Your task to perform on an android device: Open Maps and search for coffee Image 0: 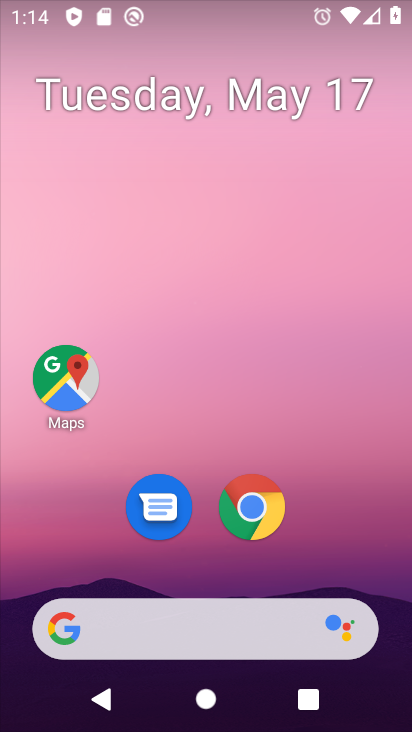
Step 0: click (59, 353)
Your task to perform on an android device: Open Maps and search for coffee Image 1: 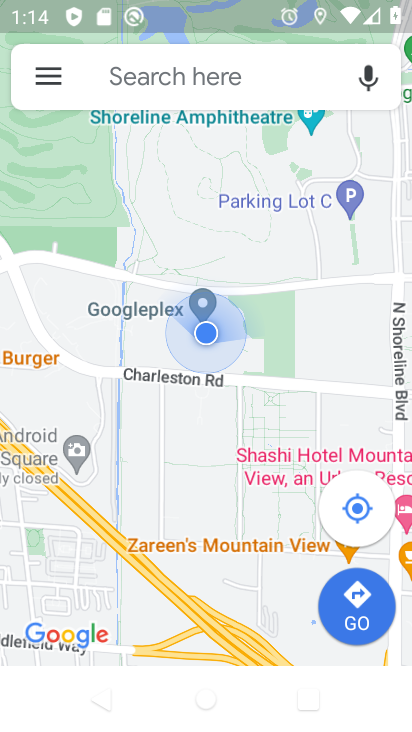
Step 1: click (235, 68)
Your task to perform on an android device: Open Maps and search for coffee Image 2: 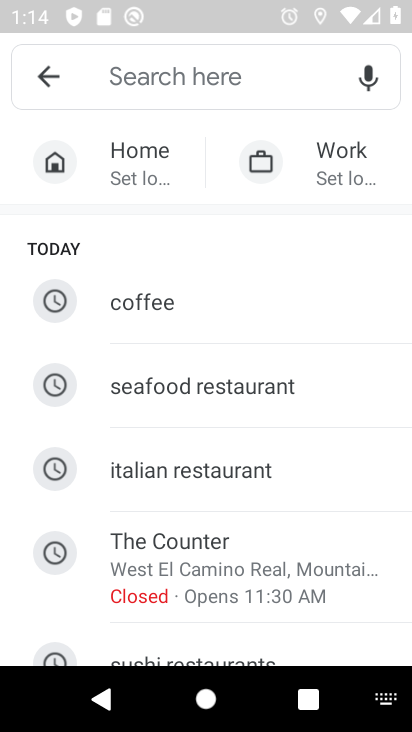
Step 2: type " coffee"
Your task to perform on an android device: Open Maps and search for coffee Image 3: 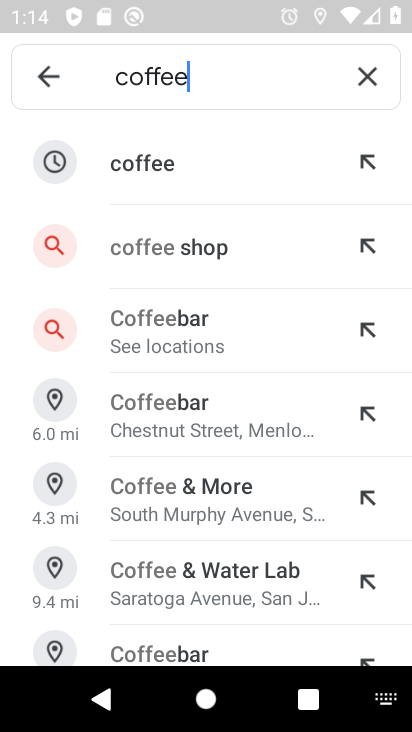
Step 3: click (190, 155)
Your task to perform on an android device: Open Maps and search for coffee Image 4: 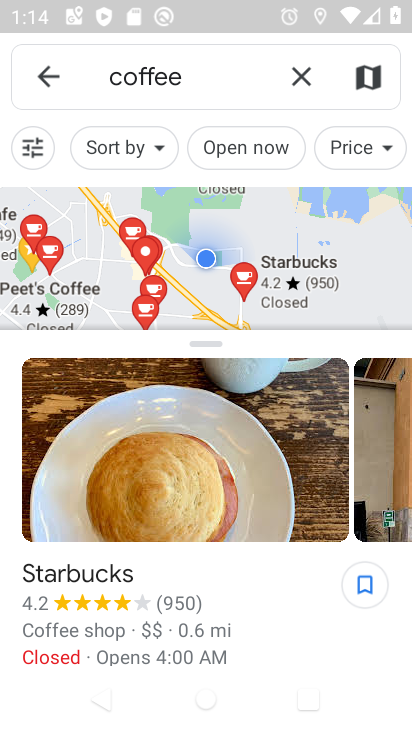
Step 4: task complete